Your task to perform on an android device: turn off picture-in-picture Image 0: 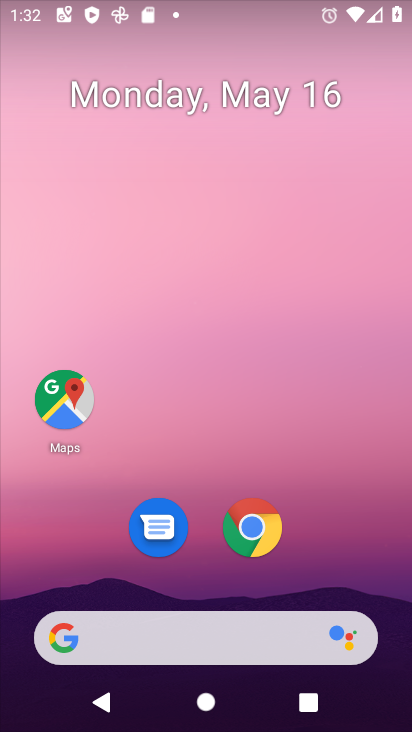
Step 0: drag from (367, 546) to (401, 255)
Your task to perform on an android device: turn off picture-in-picture Image 1: 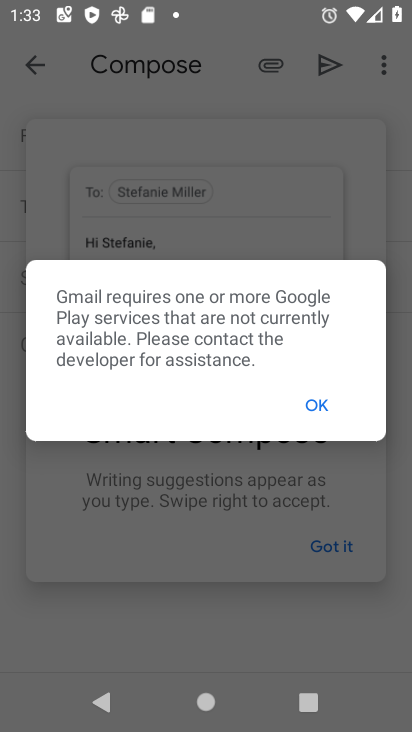
Step 1: press home button
Your task to perform on an android device: turn off picture-in-picture Image 2: 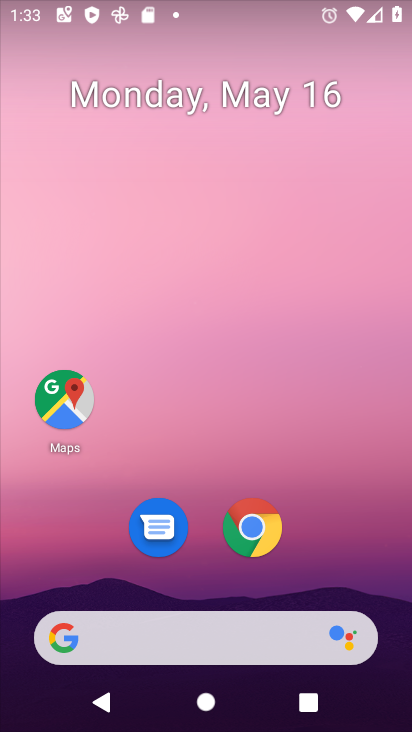
Step 2: drag from (345, 543) to (350, 98)
Your task to perform on an android device: turn off picture-in-picture Image 3: 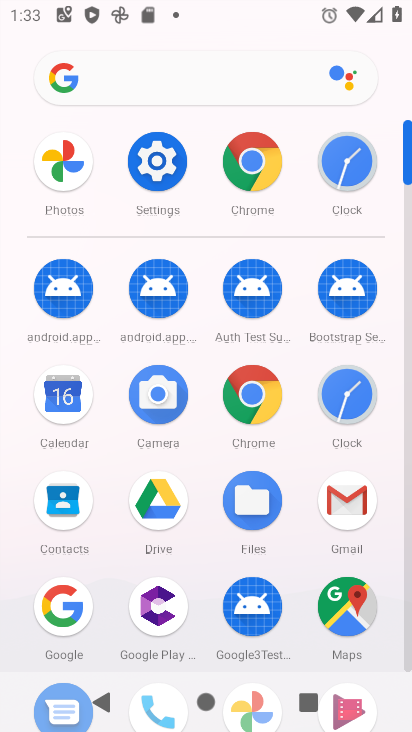
Step 3: click (350, 98)
Your task to perform on an android device: turn off picture-in-picture Image 4: 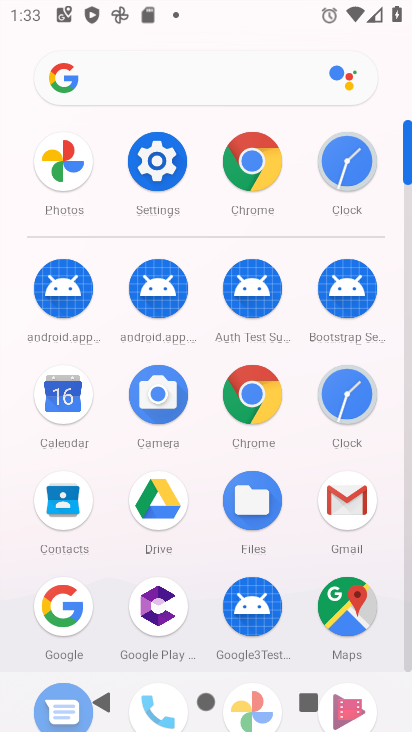
Step 4: click (142, 186)
Your task to perform on an android device: turn off picture-in-picture Image 5: 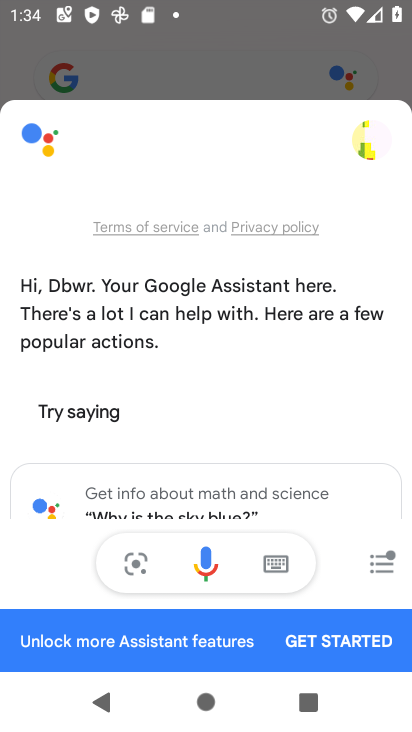
Step 5: press back button
Your task to perform on an android device: turn off picture-in-picture Image 6: 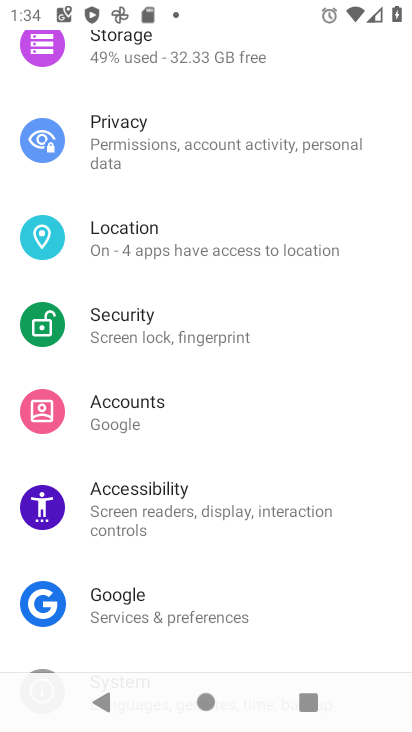
Step 6: drag from (231, 563) to (167, 701)
Your task to perform on an android device: turn off picture-in-picture Image 7: 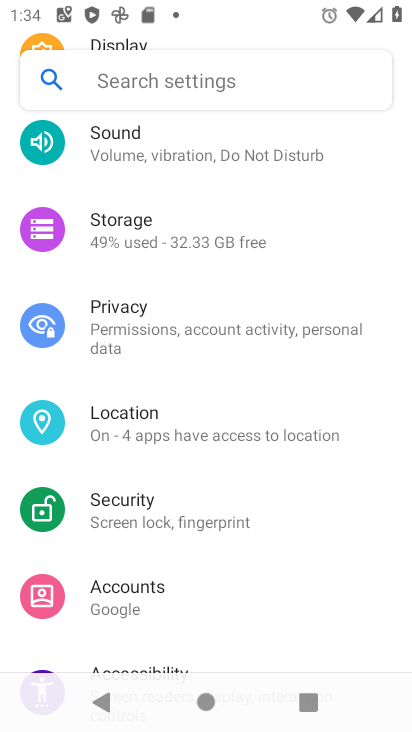
Step 7: drag from (275, 213) to (298, 407)
Your task to perform on an android device: turn off picture-in-picture Image 8: 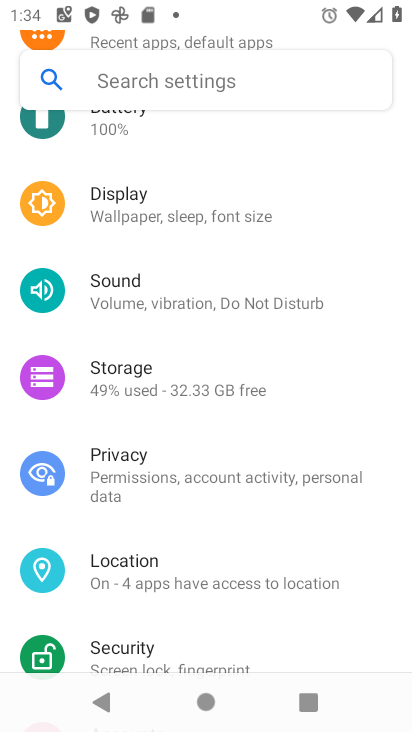
Step 8: drag from (239, 210) to (229, 695)
Your task to perform on an android device: turn off picture-in-picture Image 9: 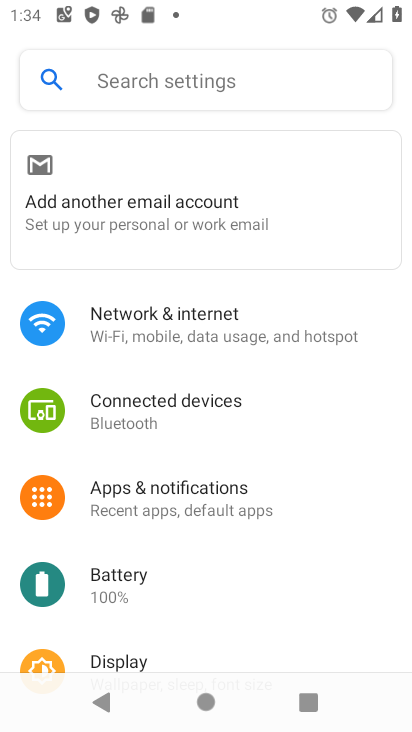
Step 9: click (205, 430)
Your task to perform on an android device: turn off picture-in-picture Image 10: 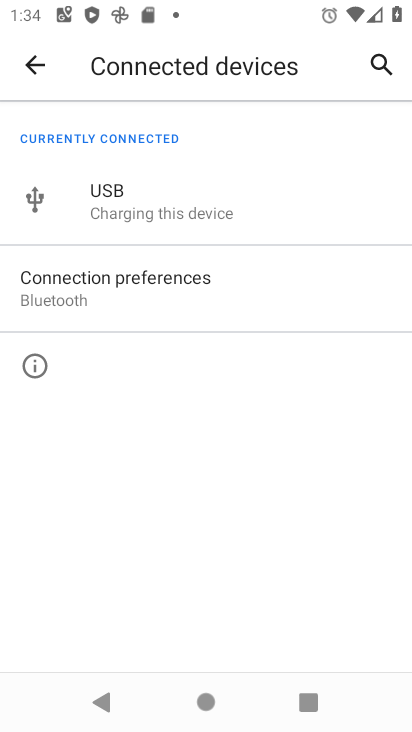
Step 10: click (21, 72)
Your task to perform on an android device: turn off picture-in-picture Image 11: 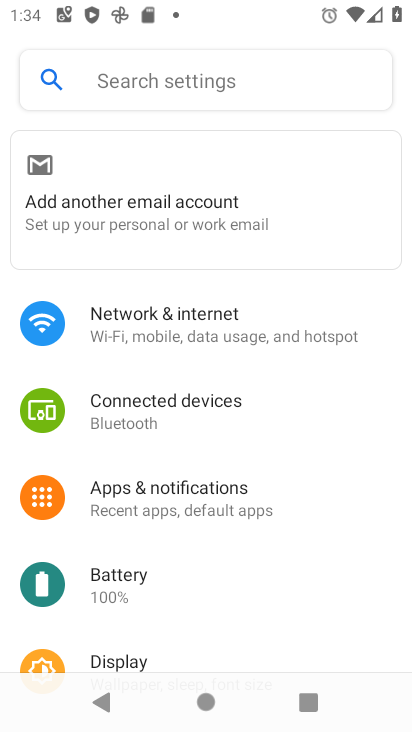
Step 11: click (139, 495)
Your task to perform on an android device: turn off picture-in-picture Image 12: 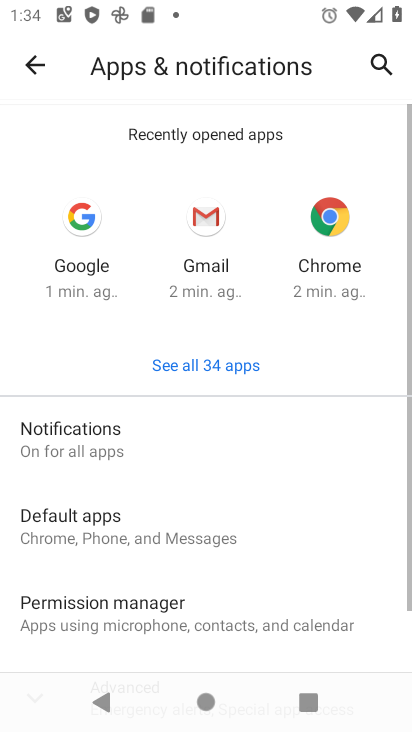
Step 12: drag from (166, 568) to (249, 233)
Your task to perform on an android device: turn off picture-in-picture Image 13: 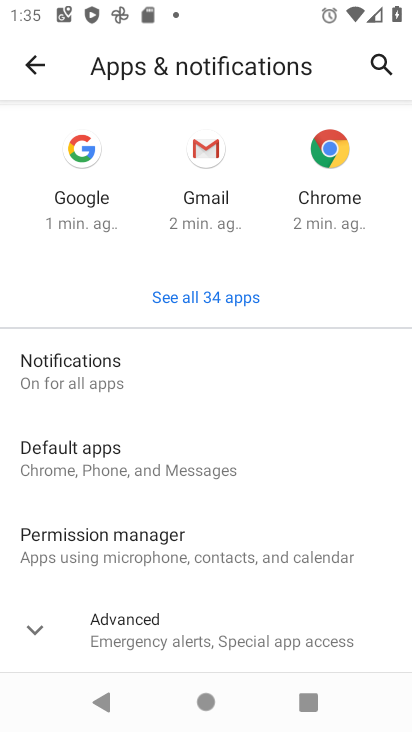
Step 13: click (210, 622)
Your task to perform on an android device: turn off picture-in-picture Image 14: 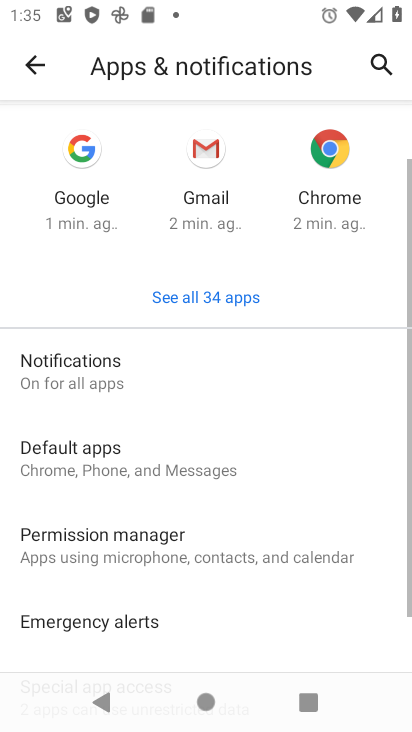
Step 14: drag from (238, 570) to (256, 368)
Your task to perform on an android device: turn off picture-in-picture Image 15: 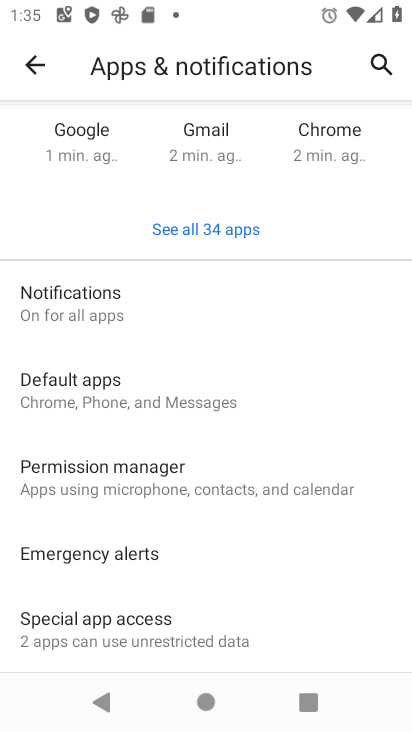
Step 15: click (190, 596)
Your task to perform on an android device: turn off picture-in-picture Image 16: 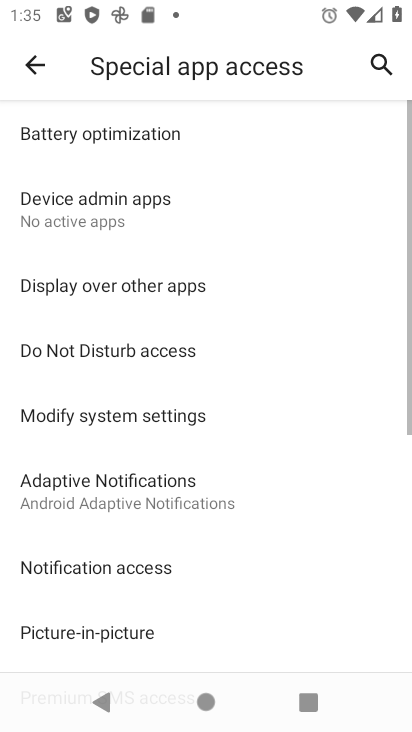
Step 16: drag from (223, 578) to (289, 333)
Your task to perform on an android device: turn off picture-in-picture Image 17: 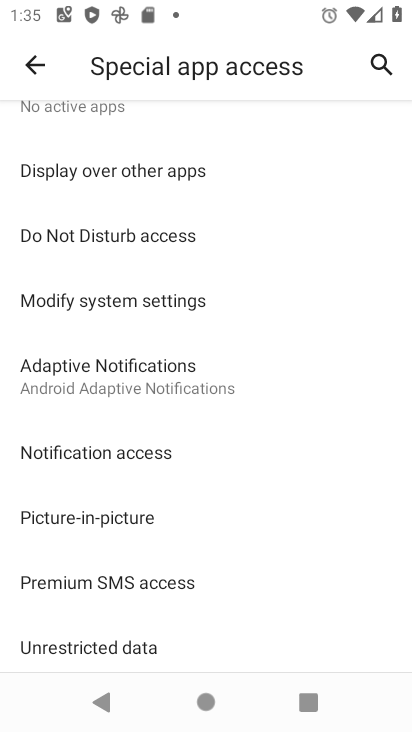
Step 17: click (233, 495)
Your task to perform on an android device: turn off picture-in-picture Image 18: 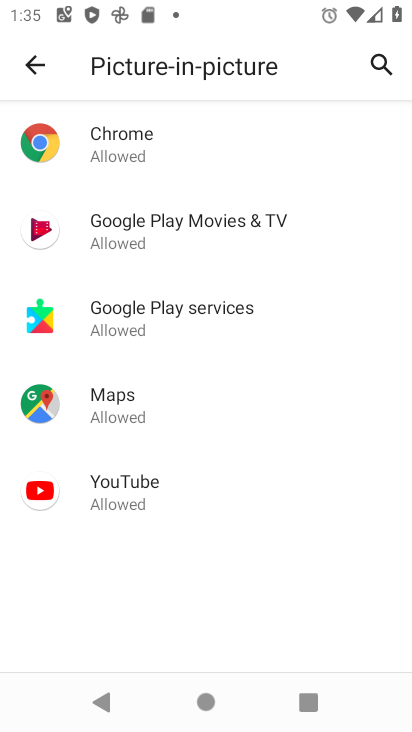
Step 18: click (237, 158)
Your task to perform on an android device: turn off picture-in-picture Image 19: 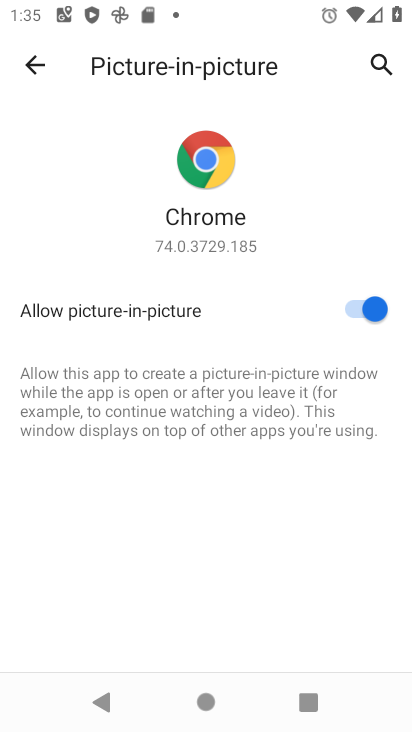
Step 19: click (372, 294)
Your task to perform on an android device: turn off picture-in-picture Image 20: 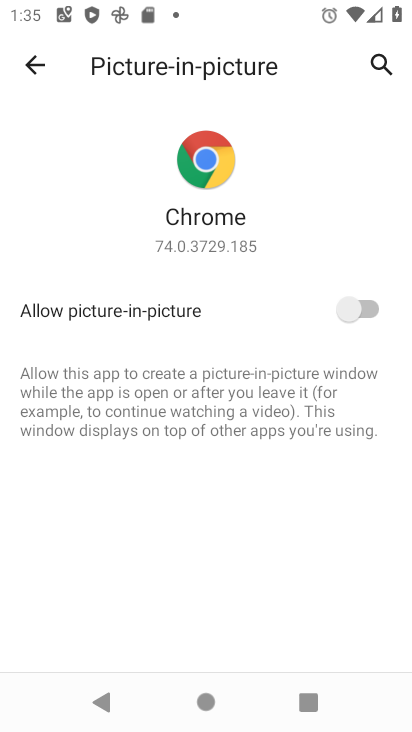
Step 20: task complete